Your task to perform on an android device: set the timer Image 0: 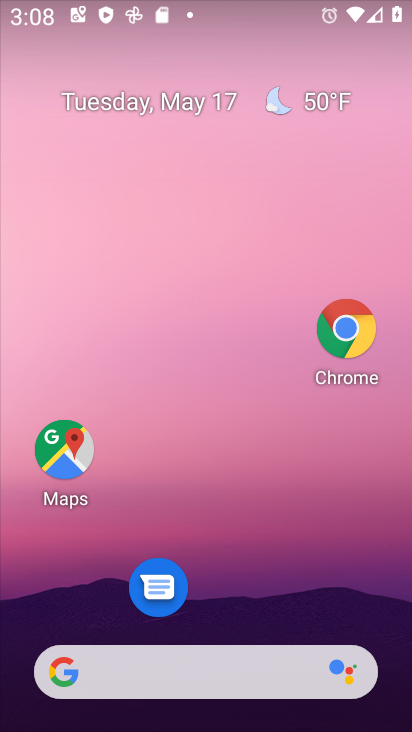
Step 0: drag from (333, 604) to (205, 1)
Your task to perform on an android device: set the timer Image 1: 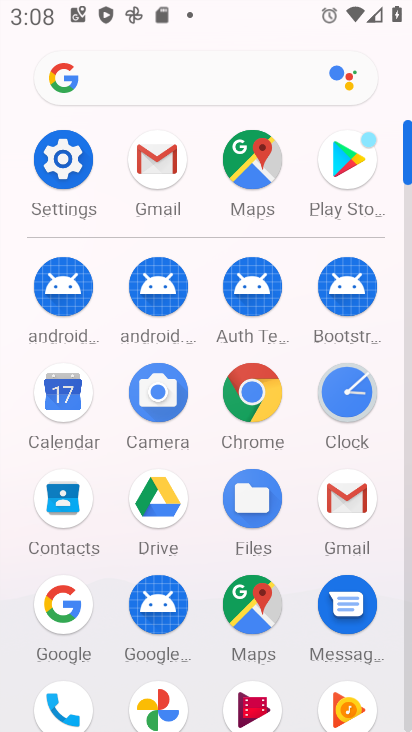
Step 1: click (370, 406)
Your task to perform on an android device: set the timer Image 2: 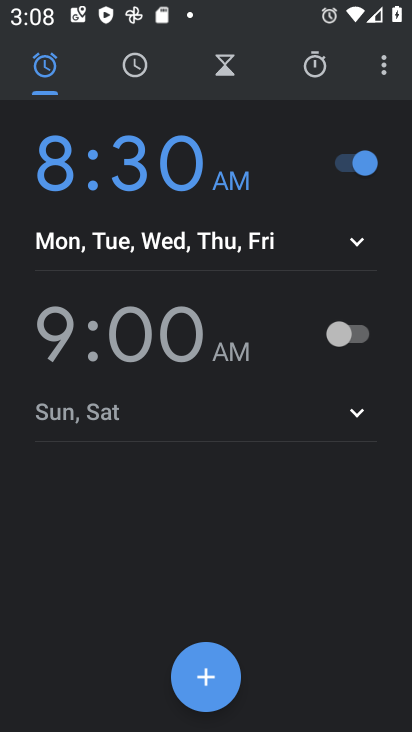
Step 2: click (378, 53)
Your task to perform on an android device: set the timer Image 3: 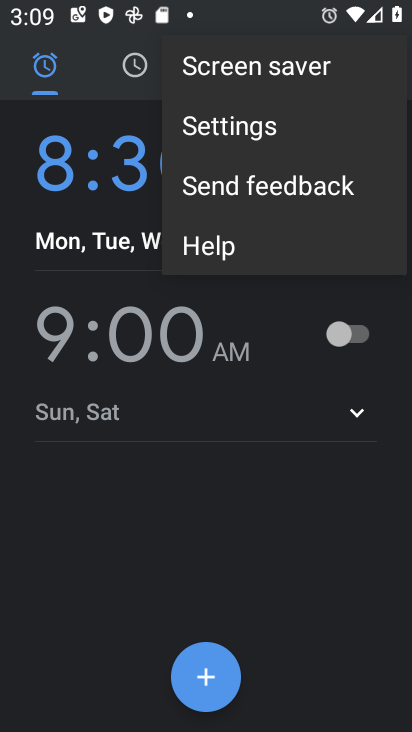
Step 3: click (346, 139)
Your task to perform on an android device: set the timer Image 4: 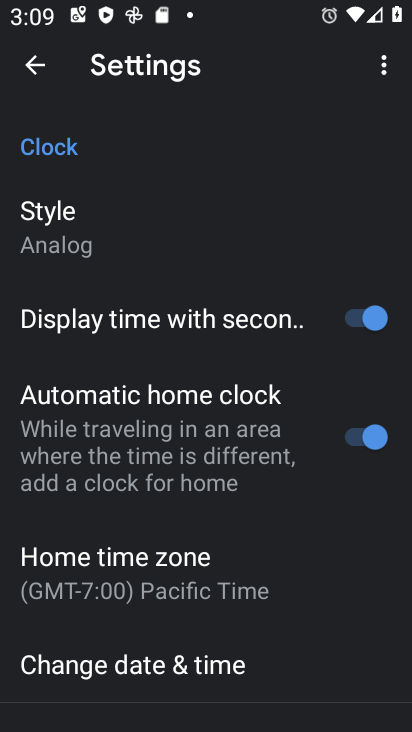
Step 4: drag from (167, 459) to (141, 311)
Your task to perform on an android device: set the timer Image 5: 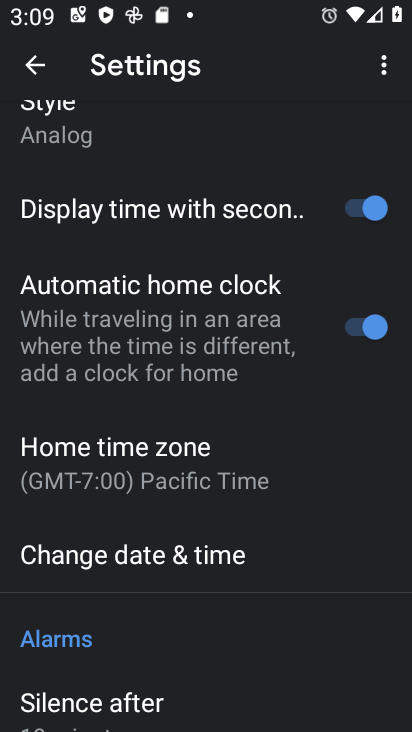
Step 5: click (44, 74)
Your task to perform on an android device: set the timer Image 6: 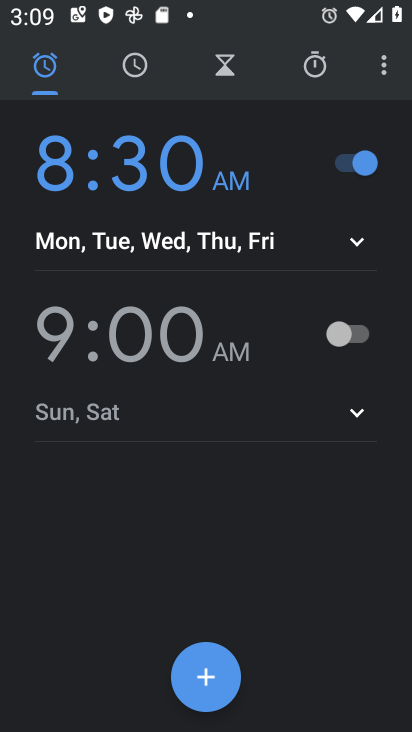
Step 6: click (242, 68)
Your task to perform on an android device: set the timer Image 7: 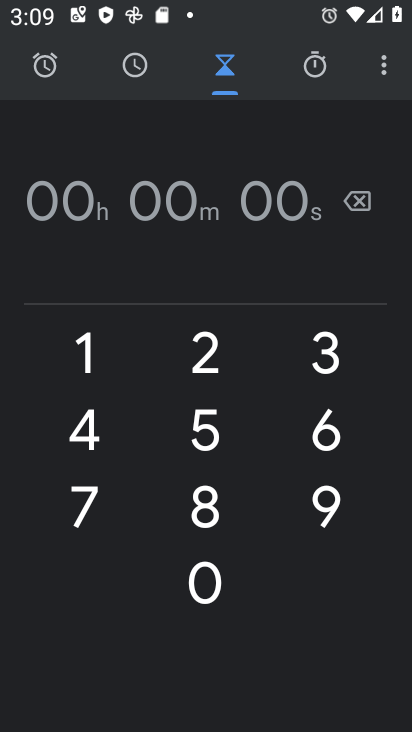
Step 7: task complete